Your task to perform on an android device: change your default location settings in chrome Image 0: 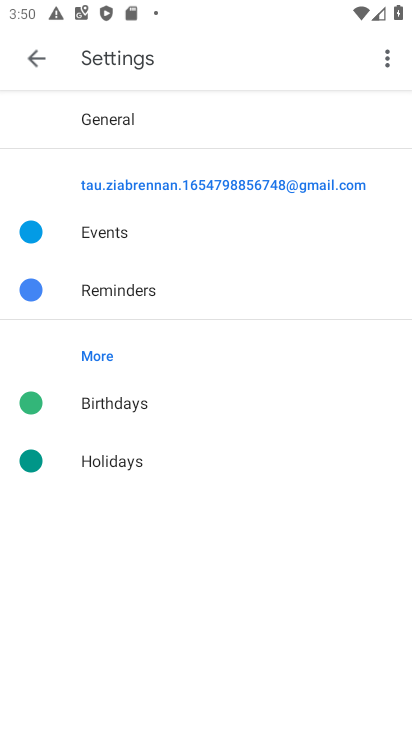
Step 0: press home button
Your task to perform on an android device: change your default location settings in chrome Image 1: 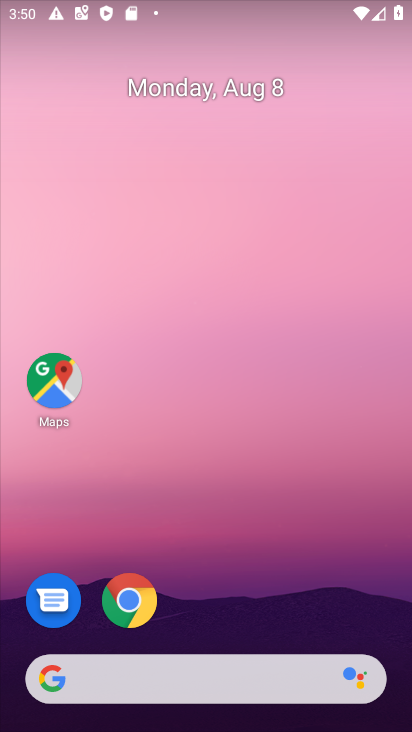
Step 1: click (126, 602)
Your task to perform on an android device: change your default location settings in chrome Image 2: 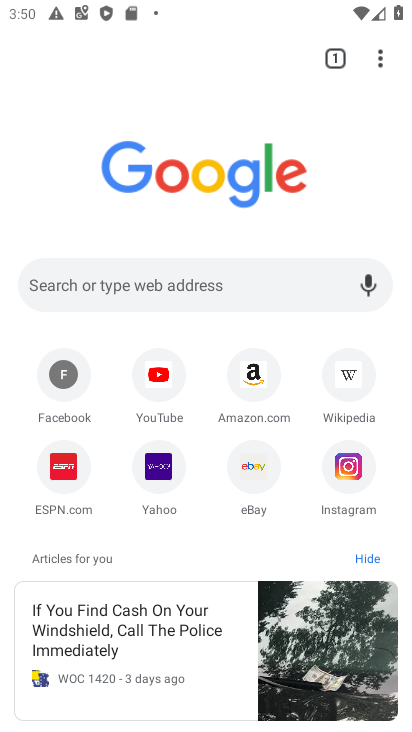
Step 2: click (382, 54)
Your task to perform on an android device: change your default location settings in chrome Image 3: 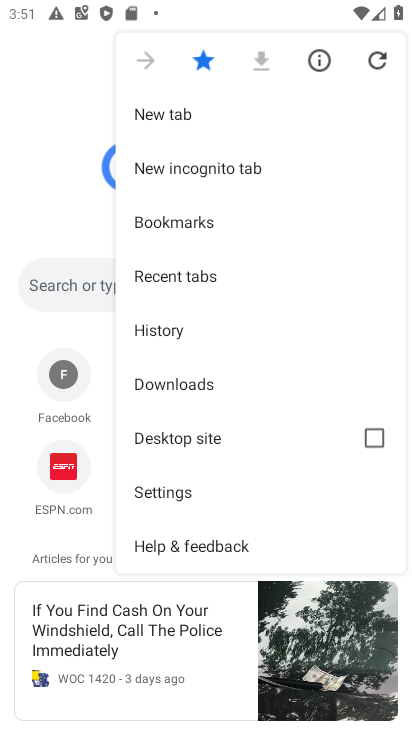
Step 3: click (168, 495)
Your task to perform on an android device: change your default location settings in chrome Image 4: 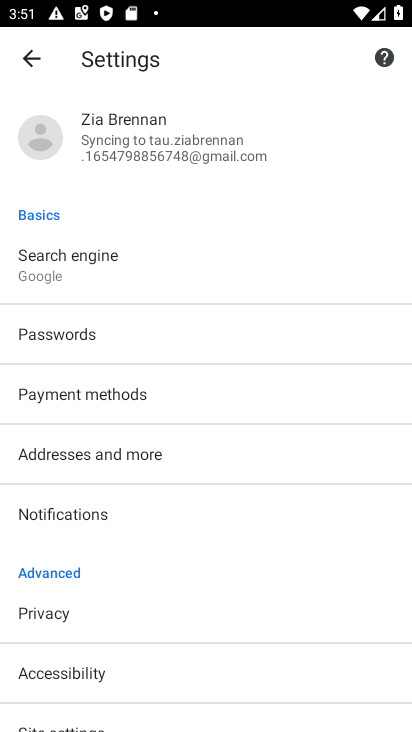
Step 4: drag from (226, 636) to (277, 306)
Your task to perform on an android device: change your default location settings in chrome Image 5: 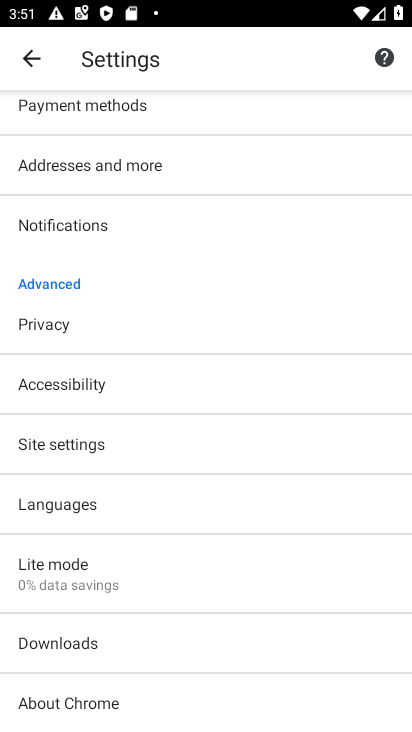
Step 5: click (68, 441)
Your task to perform on an android device: change your default location settings in chrome Image 6: 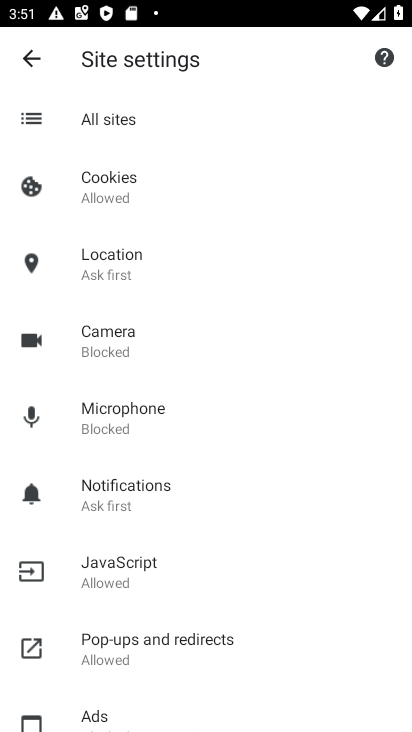
Step 6: click (90, 260)
Your task to perform on an android device: change your default location settings in chrome Image 7: 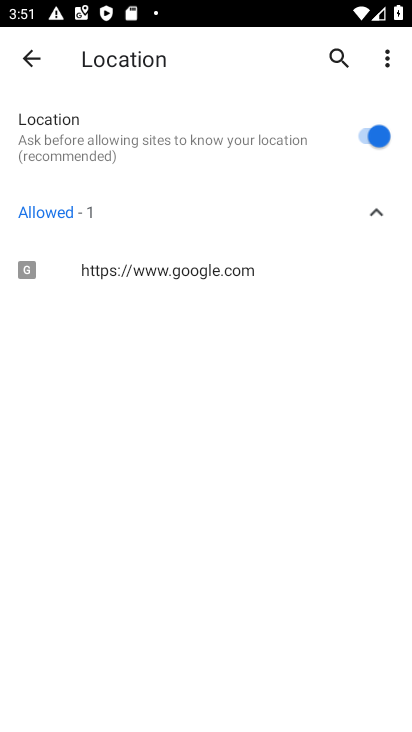
Step 7: click (364, 136)
Your task to perform on an android device: change your default location settings in chrome Image 8: 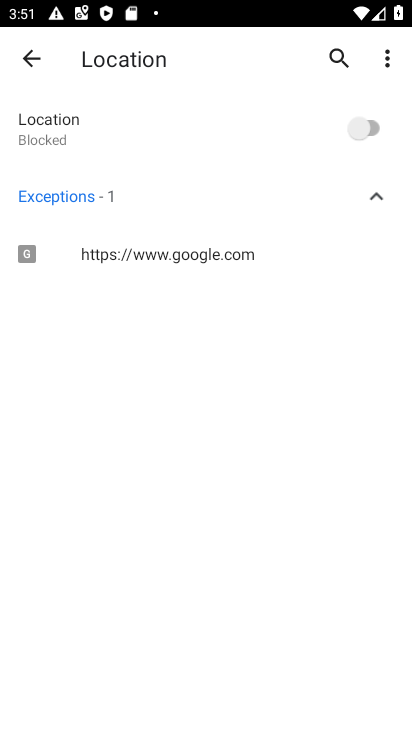
Step 8: task complete